Your task to perform on an android device: search for starred emails in the gmail app Image 0: 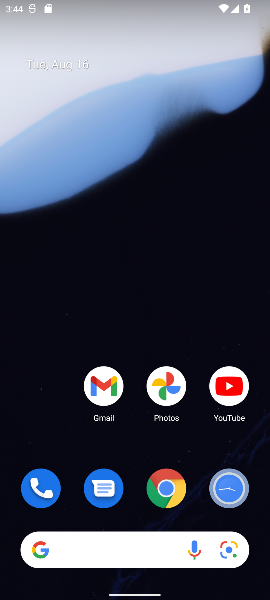
Step 0: click (102, 386)
Your task to perform on an android device: search for starred emails in the gmail app Image 1: 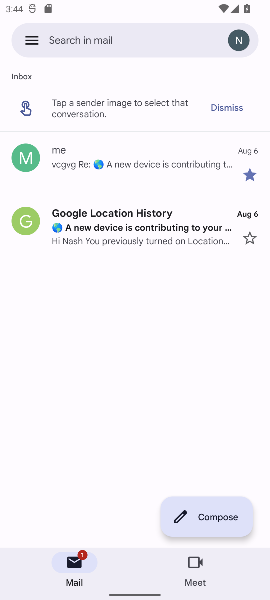
Step 1: click (32, 43)
Your task to perform on an android device: search for starred emails in the gmail app Image 2: 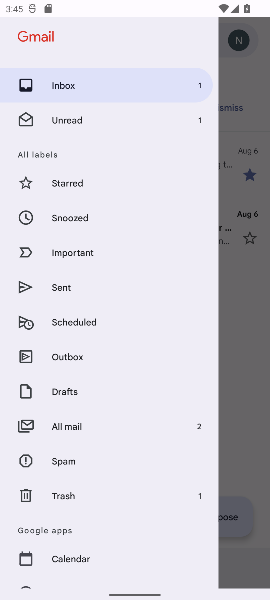
Step 2: click (81, 180)
Your task to perform on an android device: search for starred emails in the gmail app Image 3: 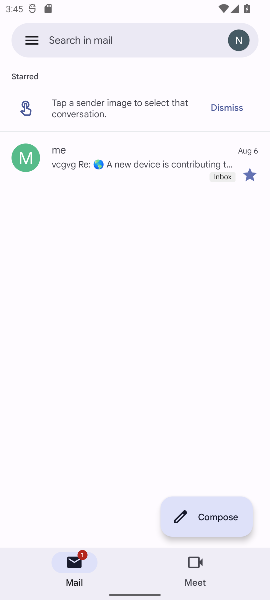
Step 3: task complete